Your task to perform on an android device: toggle translation in the chrome app Image 0: 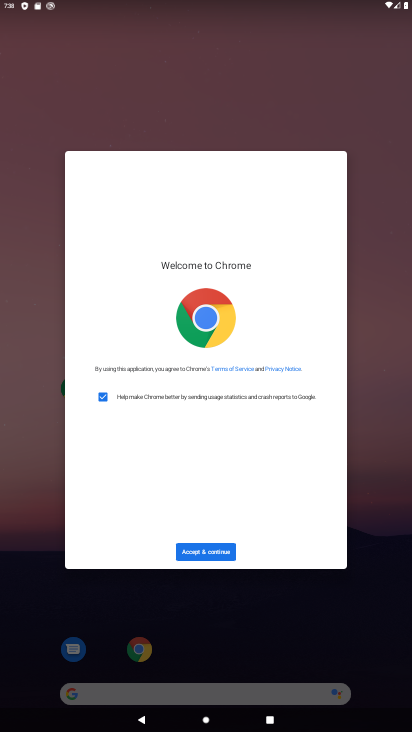
Step 0: click (224, 545)
Your task to perform on an android device: toggle translation in the chrome app Image 1: 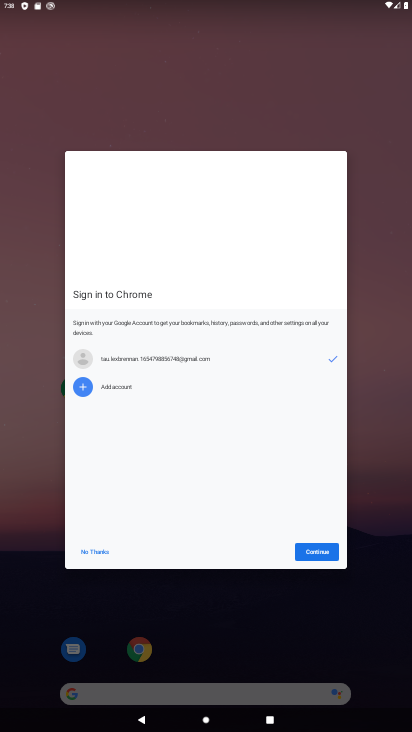
Step 1: click (330, 553)
Your task to perform on an android device: toggle translation in the chrome app Image 2: 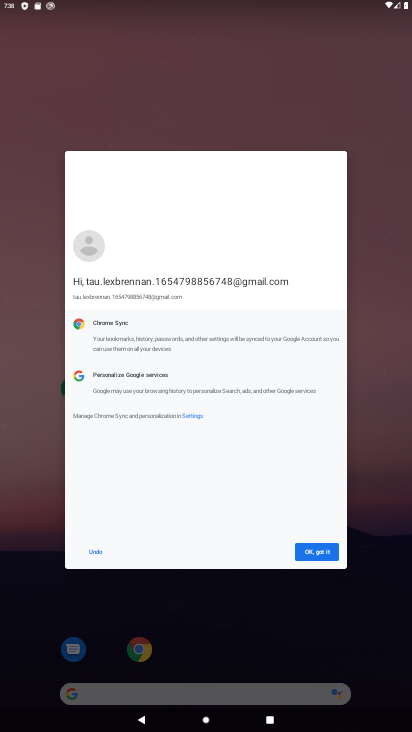
Step 2: click (330, 553)
Your task to perform on an android device: toggle translation in the chrome app Image 3: 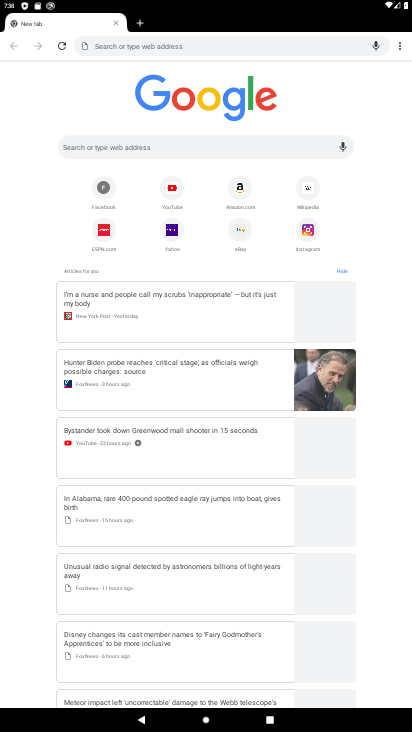
Step 3: click (395, 50)
Your task to perform on an android device: toggle translation in the chrome app Image 4: 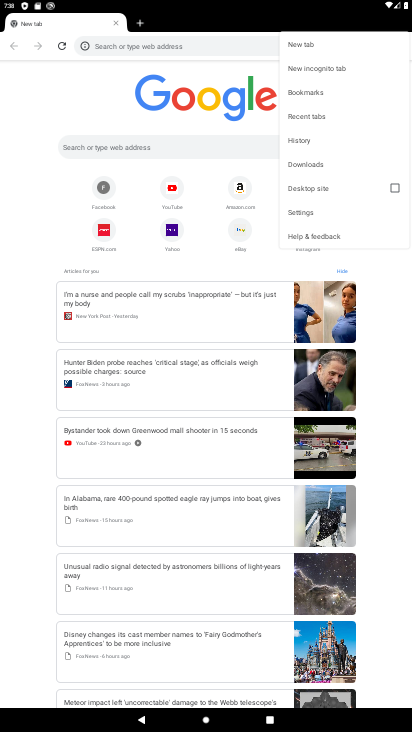
Step 4: click (316, 212)
Your task to perform on an android device: toggle translation in the chrome app Image 5: 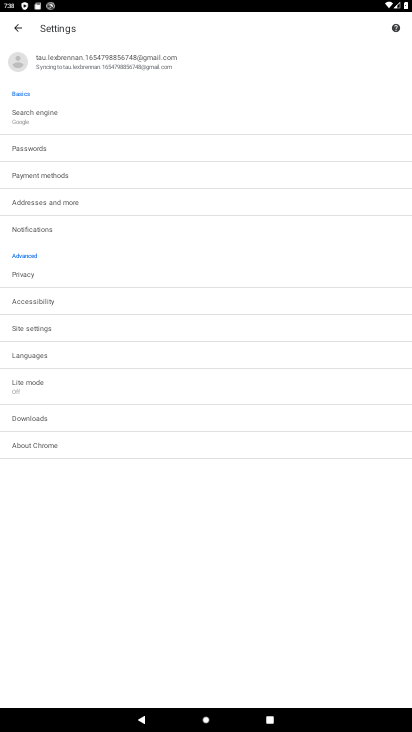
Step 5: click (122, 356)
Your task to perform on an android device: toggle translation in the chrome app Image 6: 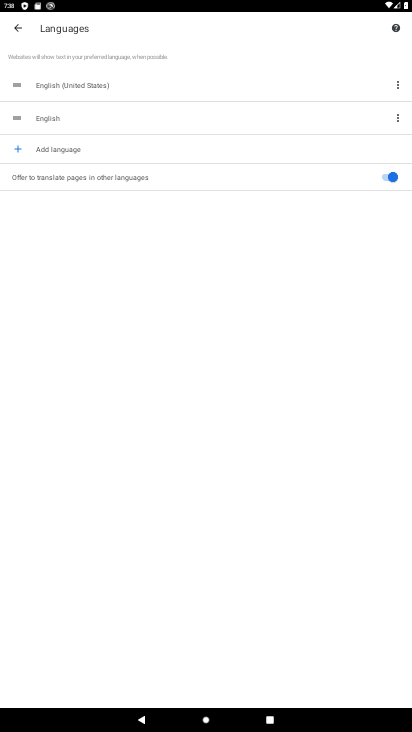
Step 6: click (385, 170)
Your task to perform on an android device: toggle translation in the chrome app Image 7: 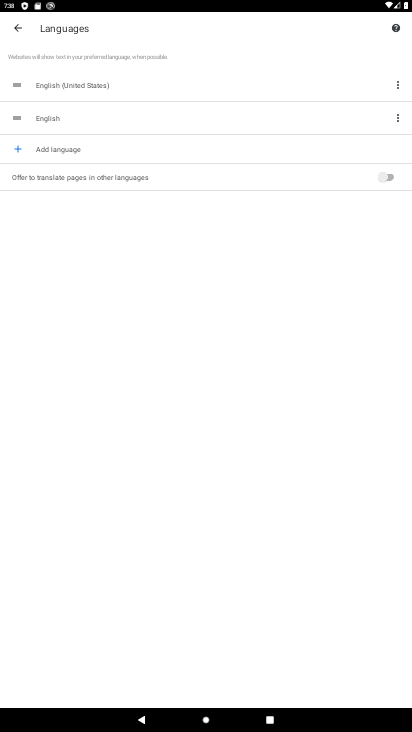
Step 7: task complete